Your task to perform on an android device: Search for Italian restaurants on Maps Image 0: 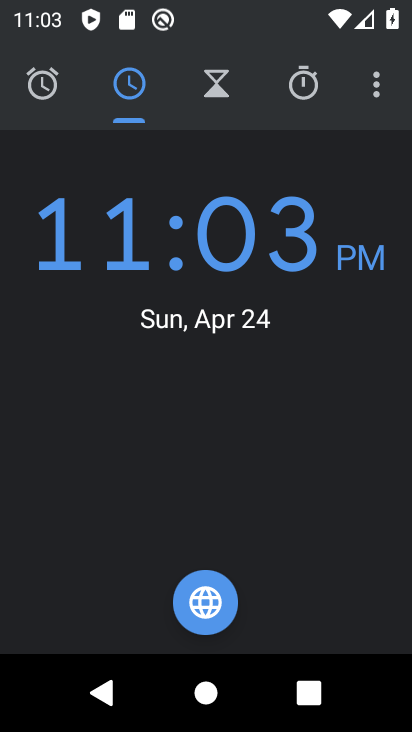
Step 0: press home button
Your task to perform on an android device: Search for Italian restaurants on Maps Image 1: 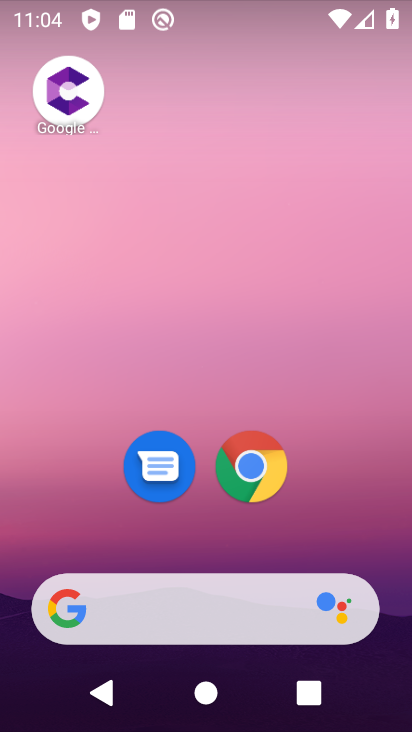
Step 1: drag from (214, 569) to (232, 107)
Your task to perform on an android device: Search for Italian restaurants on Maps Image 2: 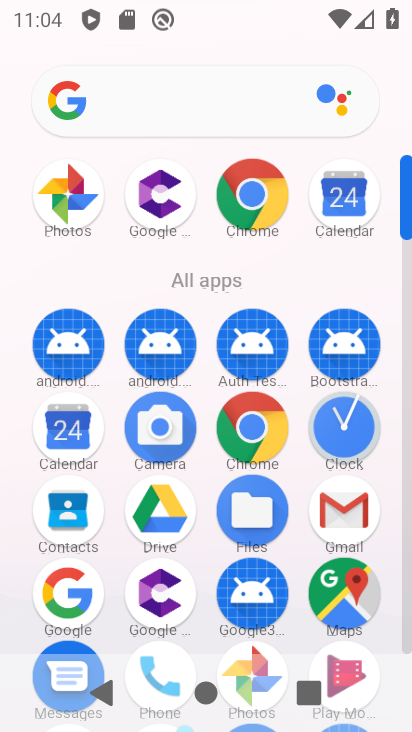
Step 2: drag from (271, 516) to (248, 174)
Your task to perform on an android device: Search for Italian restaurants on Maps Image 3: 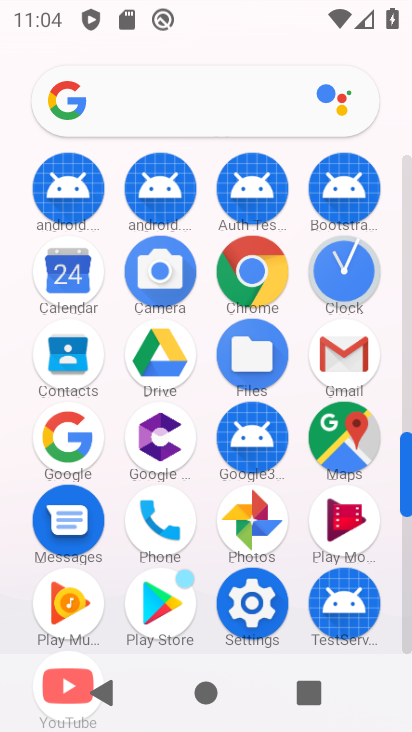
Step 3: click (347, 434)
Your task to perform on an android device: Search for Italian restaurants on Maps Image 4: 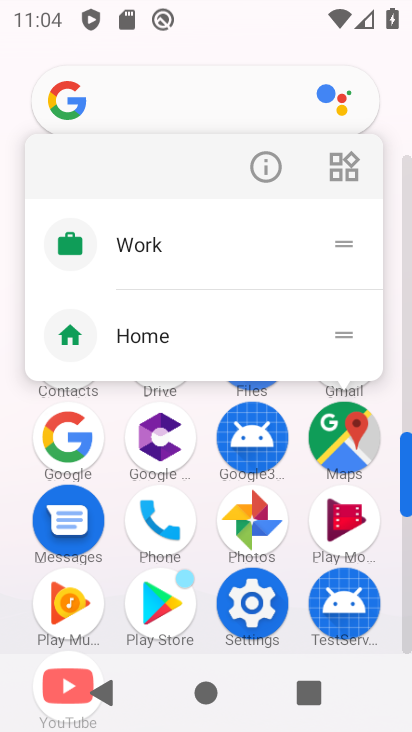
Step 4: click (355, 441)
Your task to perform on an android device: Search for Italian restaurants on Maps Image 5: 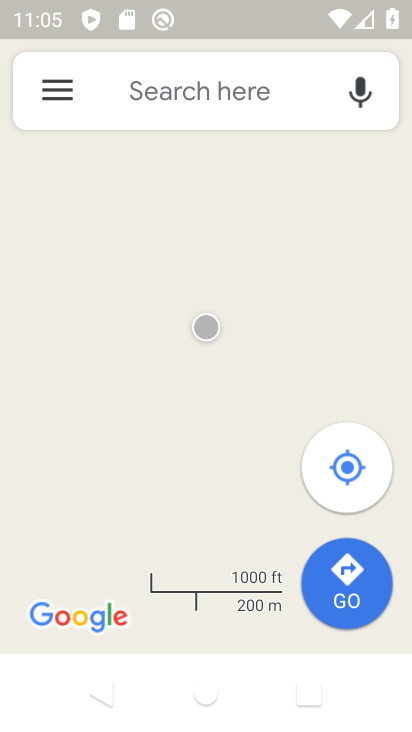
Step 5: click (164, 96)
Your task to perform on an android device: Search for Italian restaurants on Maps Image 6: 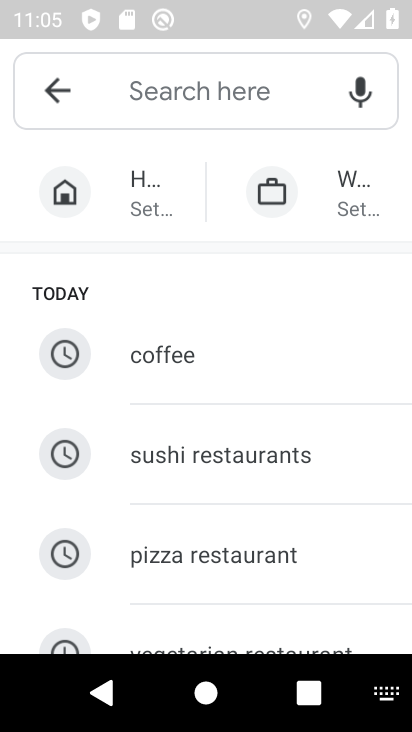
Step 6: type "italian restaurants"
Your task to perform on an android device: Search for Italian restaurants on Maps Image 7: 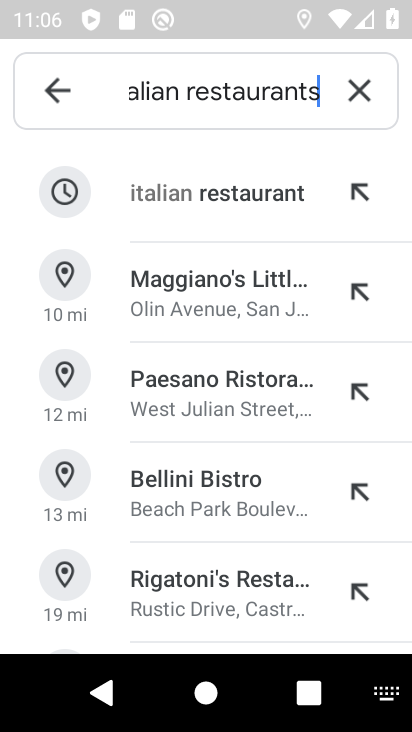
Step 7: task complete